Your task to perform on an android device: Do I have any events tomorrow? Image 0: 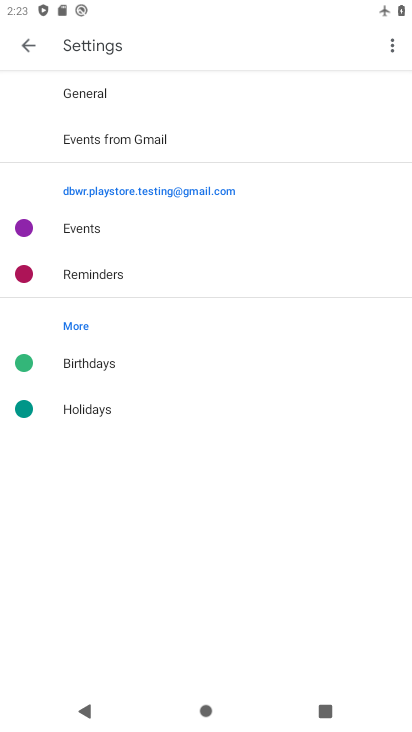
Step 0: press home button
Your task to perform on an android device: Do I have any events tomorrow? Image 1: 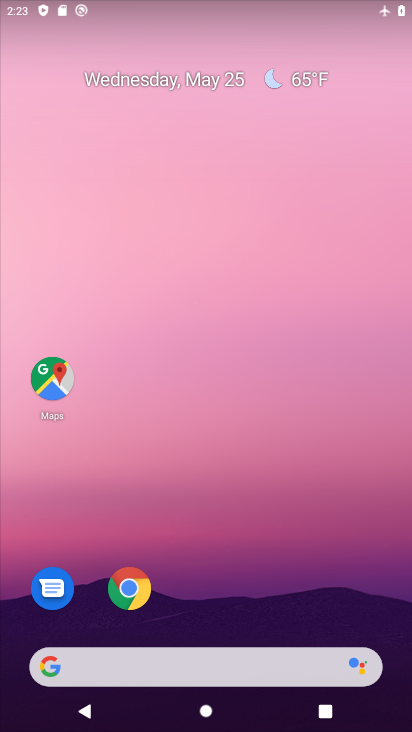
Step 1: drag from (188, 573) to (188, 153)
Your task to perform on an android device: Do I have any events tomorrow? Image 2: 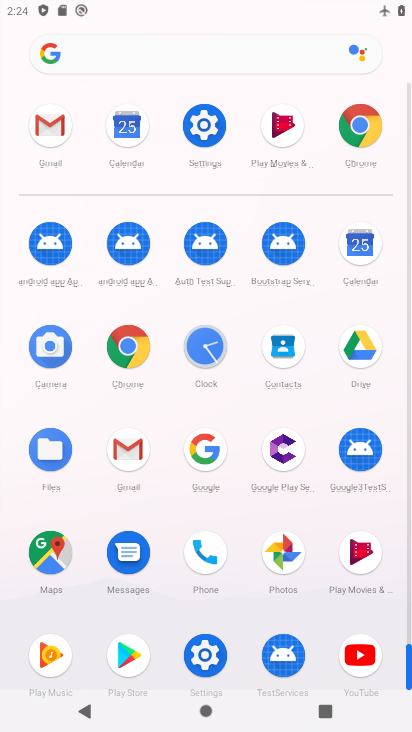
Step 2: click (360, 251)
Your task to perform on an android device: Do I have any events tomorrow? Image 3: 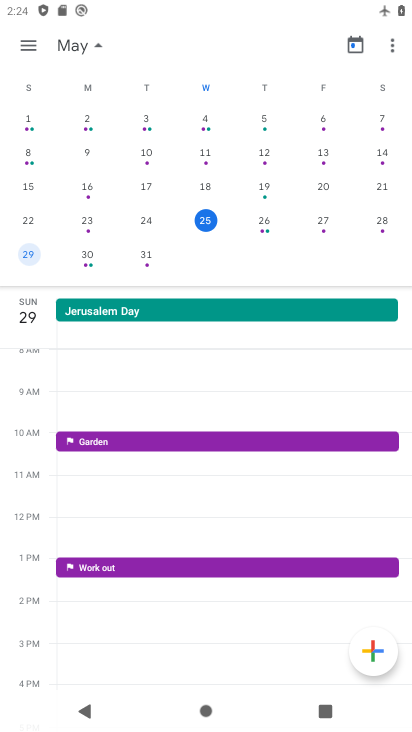
Step 3: click (259, 229)
Your task to perform on an android device: Do I have any events tomorrow? Image 4: 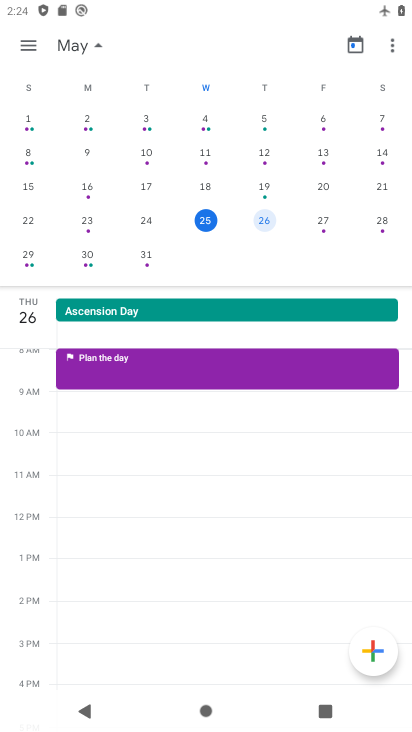
Step 4: task complete